Your task to perform on an android device: Search for sushi restaurants on Maps Image 0: 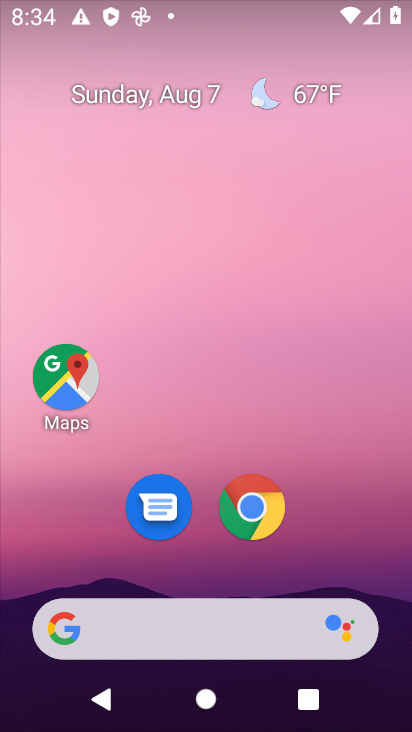
Step 0: click (68, 375)
Your task to perform on an android device: Search for sushi restaurants on Maps Image 1: 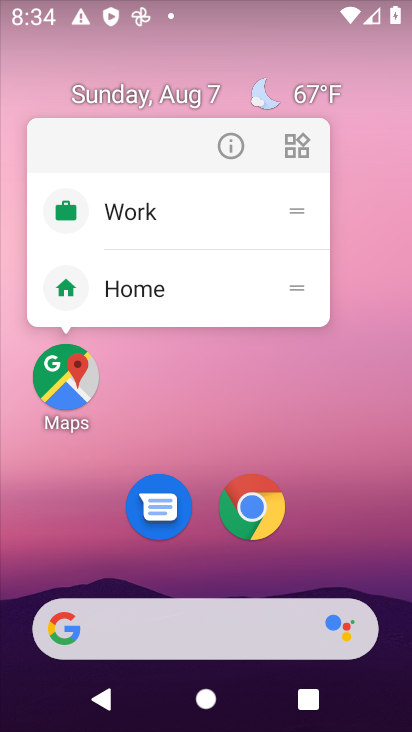
Step 1: click (68, 375)
Your task to perform on an android device: Search for sushi restaurants on Maps Image 2: 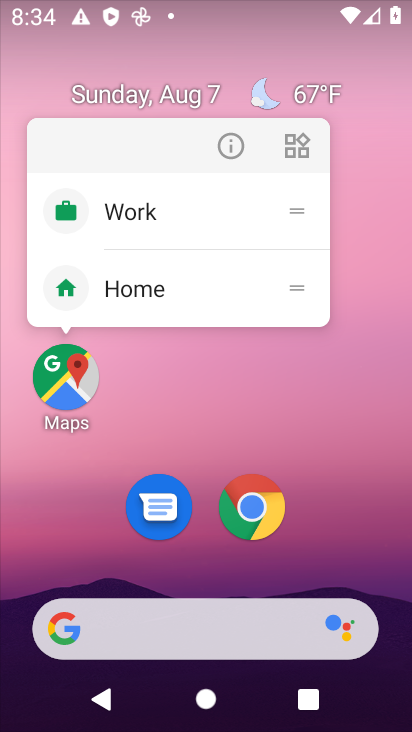
Step 2: click (68, 376)
Your task to perform on an android device: Search for sushi restaurants on Maps Image 3: 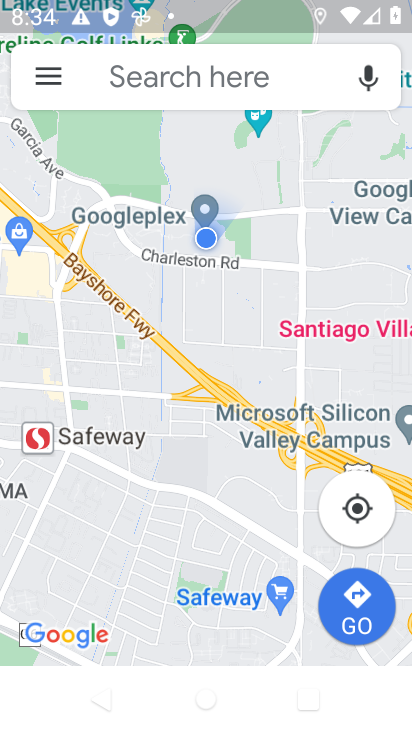
Step 3: click (133, 74)
Your task to perform on an android device: Search for sushi restaurants on Maps Image 4: 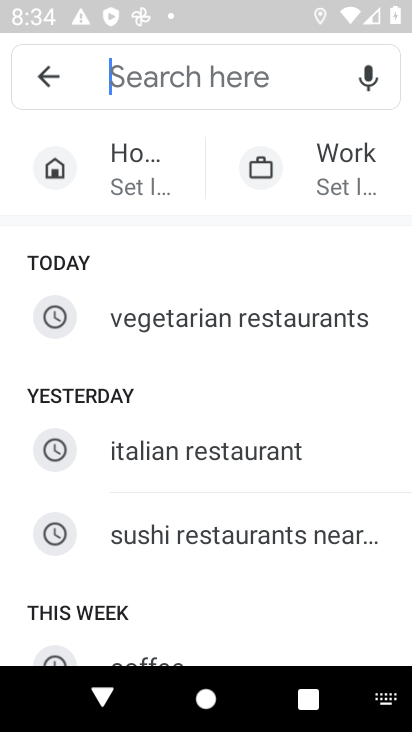
Step 4: click (230, 535)
Your task to perform on an android device: Search for sushi restaurants on Maps Image 5: 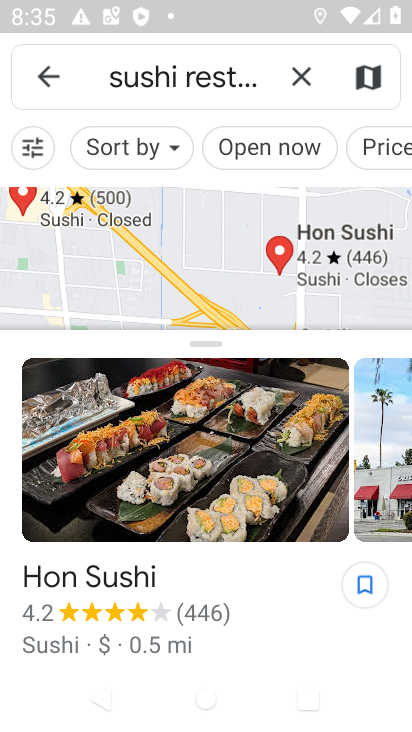
Step 5: task complete